Your task to perform on an android device: Go to network settings Image 0: 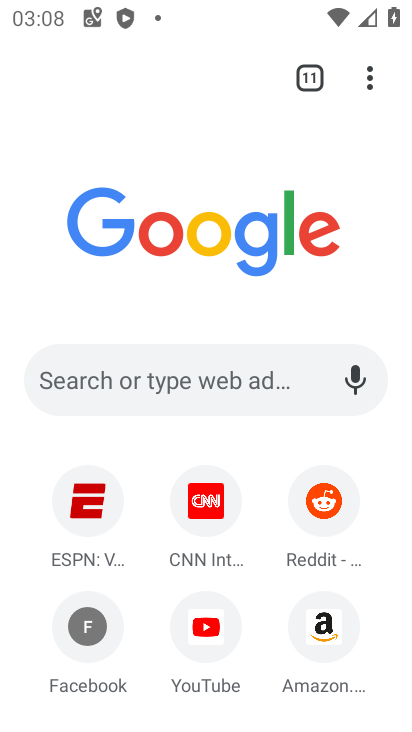
Step 0: press home button
Your task to perform on an android device: Go to network settings Image 1: 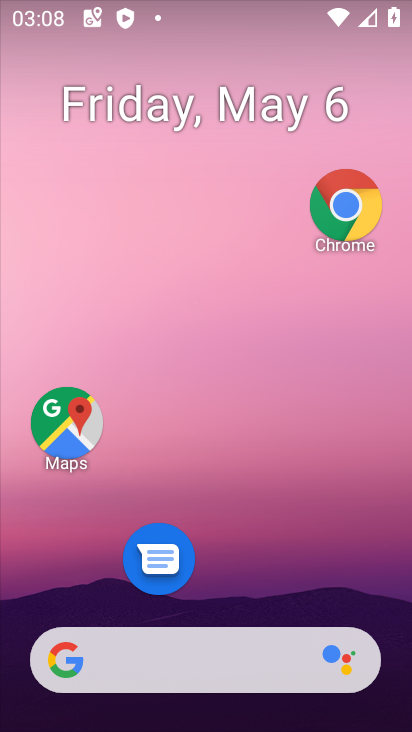
Step 1: drag from (143, 663) to (326, 111)
Your task to perform on an android device: Go to network settings Image 2: 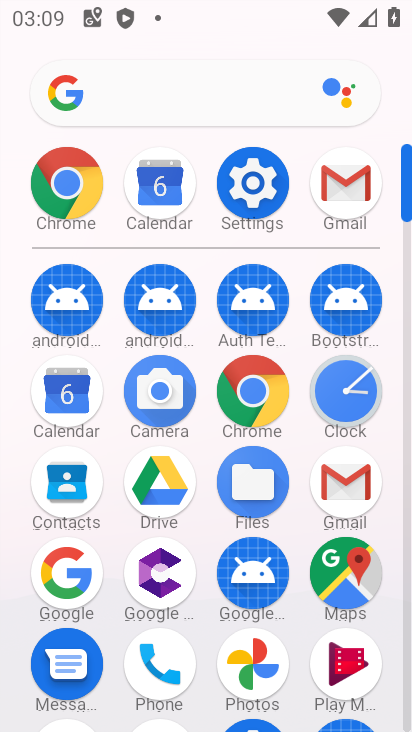
Step 2: click (268, 199)
Your task to perform on an android device: Go to network settings Image 3: 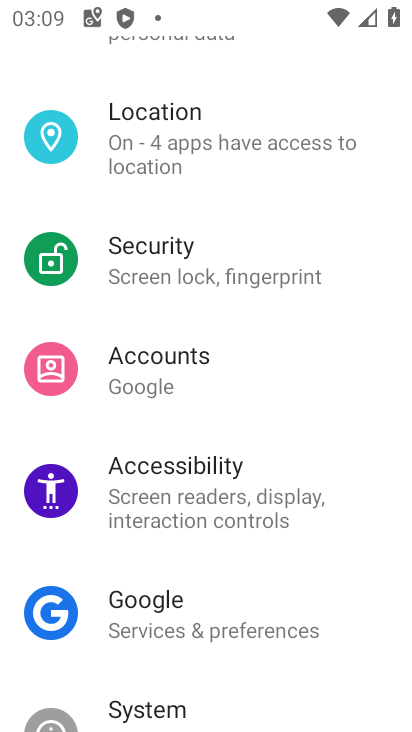
Step 3: drag from (317, 105) to (182, 592)
Your task to perform on an android device: Go to network settings Image 4: 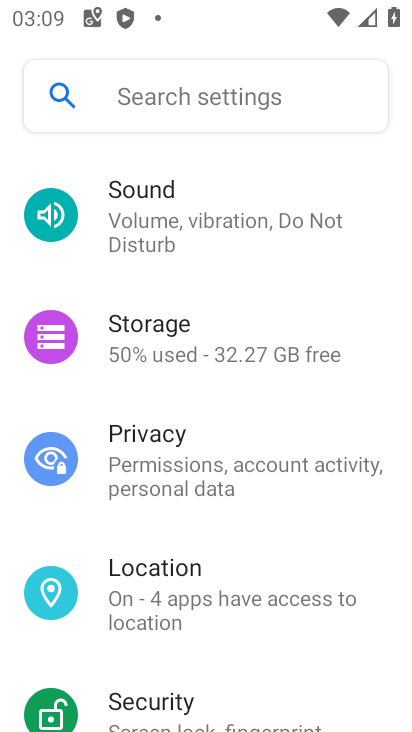
Step 4: drag from (298, 191) to (177, 641)
Your task to perform on an android device: Go to network settings Image 5: 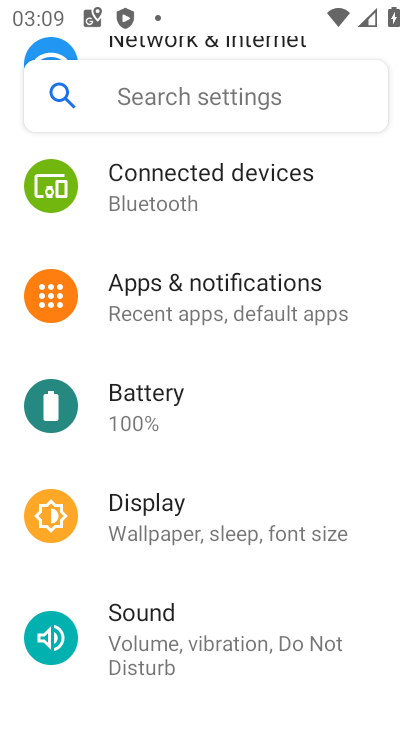
Step 5: drag from (270, 223) to (161, 647)
Your task to perform on an android device: Go to network settings Image 6: 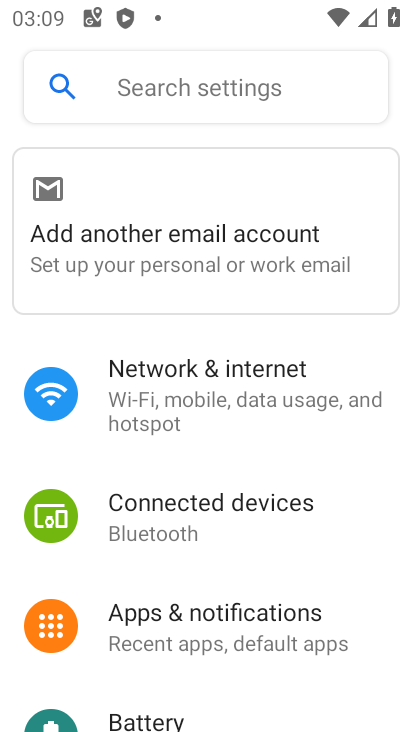
Step 6: click (195, 392)
Your task to perform on an android device: Go to network settings Image 7: 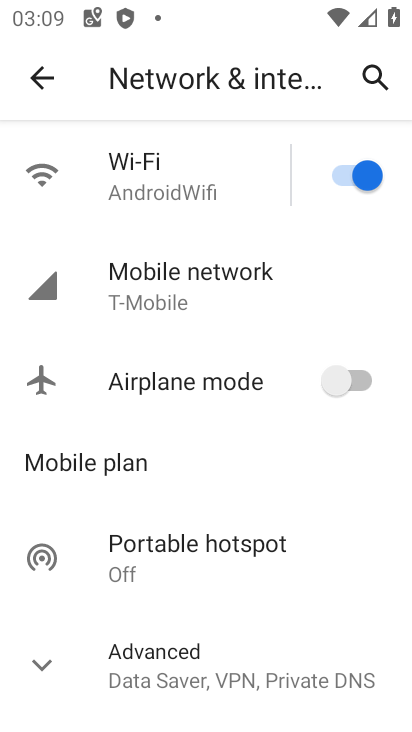
Step 7: task complete